Your task to perform on an android device: Open calendar and show me the fourth week of next month Image 0: 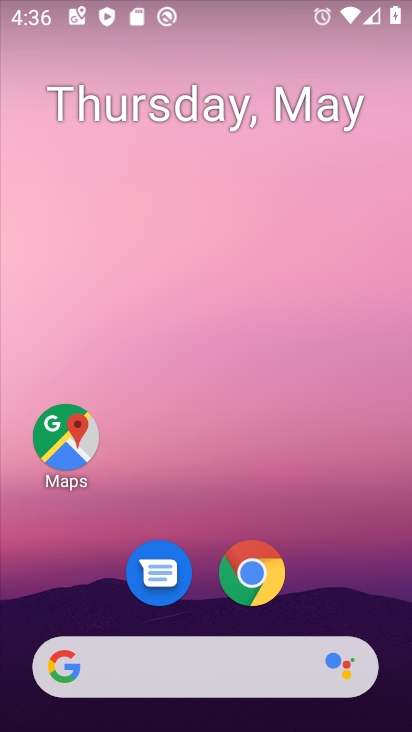
Step 0: drag from (282, 520) to (334, 74)
Your task to perform on an android device: Open calendar and show me the fourth week of next month Image 1: 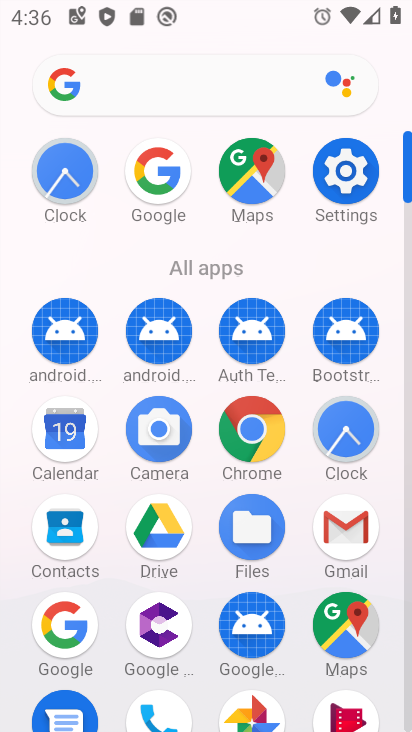
Step 1: click (75, 454)
Your task to perform on an android device: Open calendar and show me the fourth week of next month Image 2: 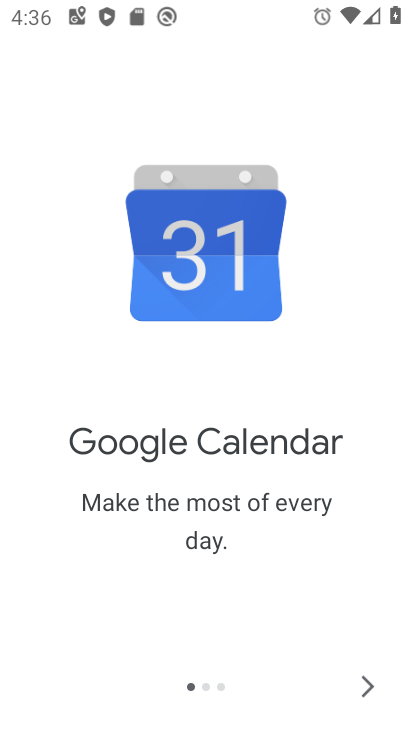
Step 2: click (368, 687)
Your task to perform on an android device: Open calendar and show me the fourth week of next month Image 3: 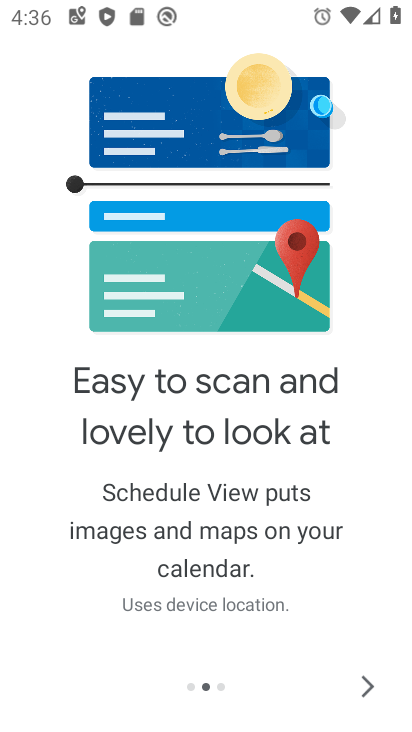
Step 3: click (368, 687)
Your task to perform on an android device: Open calendar and show me the fourth week of next month Image 4: 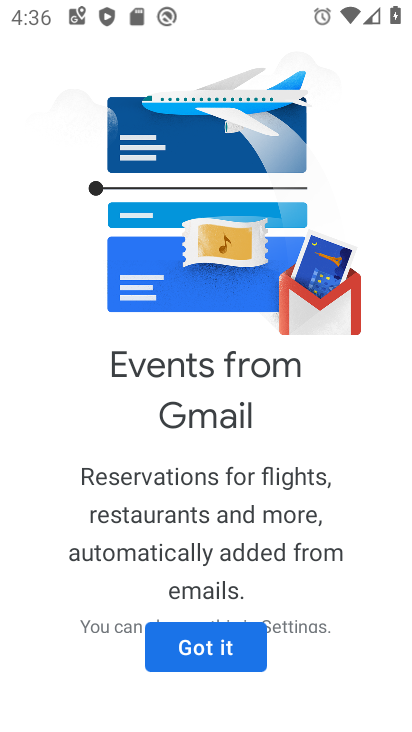
Step 4: click (368, 687)
Your task to perform on an android device: Open calendar and show me the fourth week of next month Image 5: 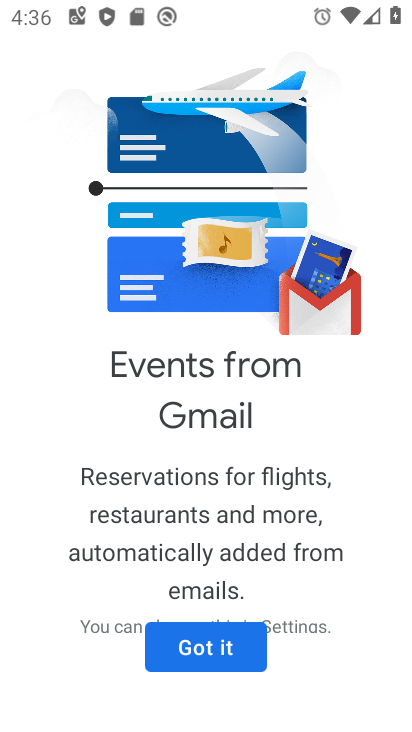
Step 5: click (192, 663)
Your task to perform on an android device: Open calendar and show me the fourth week of next month Image 6: 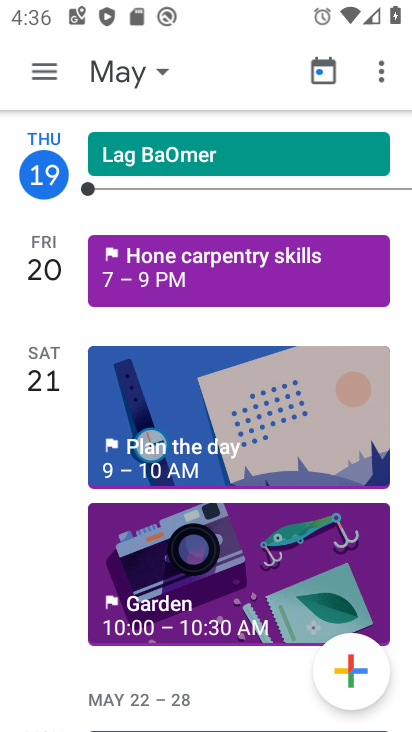
Step 6: click (111, 66)
Your task to perform on an android device: Open calendar and show me the fourth week of next month Image 7: 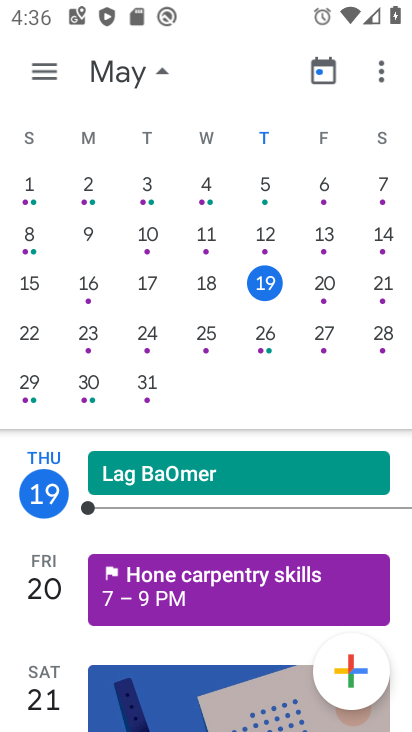
Step 7: drag from (333, 277) to (18, 262)
Your task to perform on an android device: Open calendar and show me the fourth week of next month Image 8: 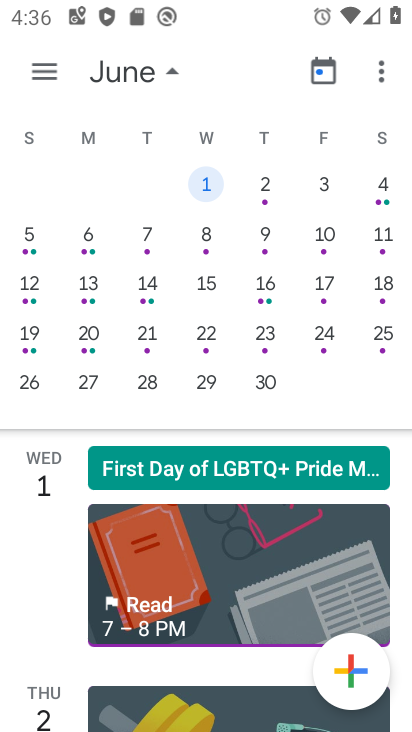
Step 8: click (28, 341)
Your task to perform on an android device: Open calendar and show me the fourth week of next month Image 9: 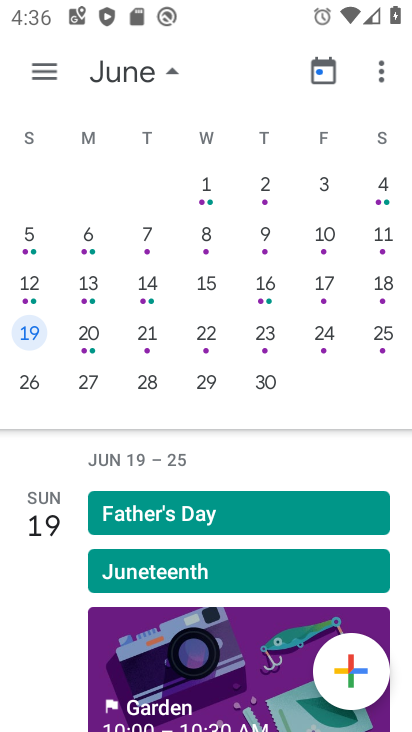
Step 9: click (28, 341)
Your task to perform on an android device: Open calendar and show me the fourth week of next month Image 10: 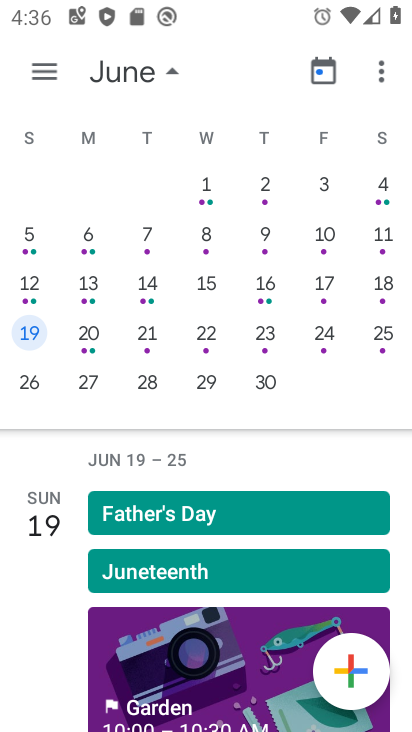
Step 10: drag from (219, 442) to (235, 79)
Your task to perform on an android device: Open calendar and show me the fourth week of next month Image 11: 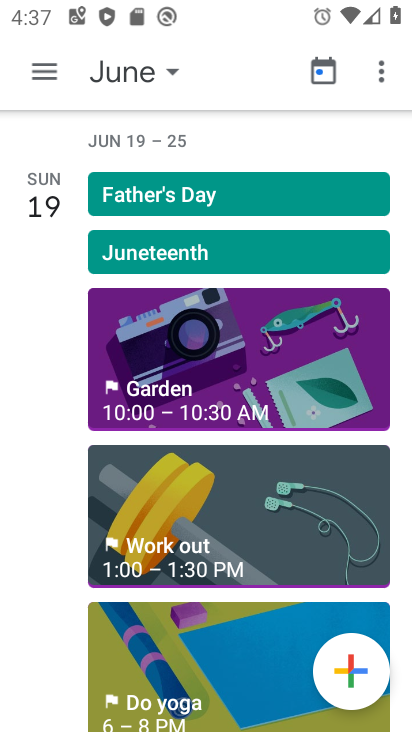
Step 11: click (57, 80)
Your task to perform on an android device: Open calendar and show me the fourth week of next month Image 12: 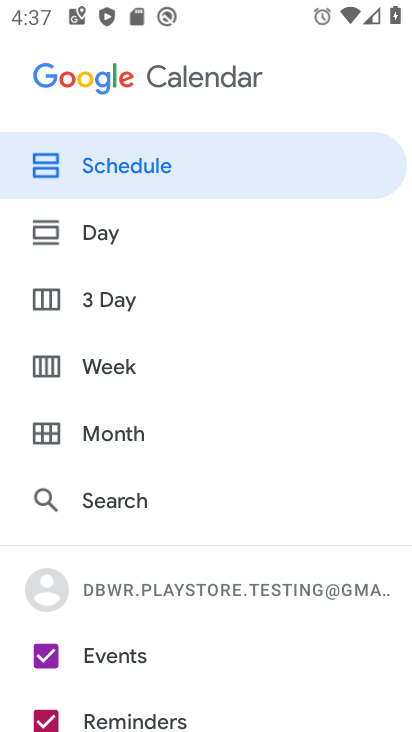
Step 12: click (84, 374)
Your task to perform on an android device: Open calendar and show me the fourth week of next month Image 13: 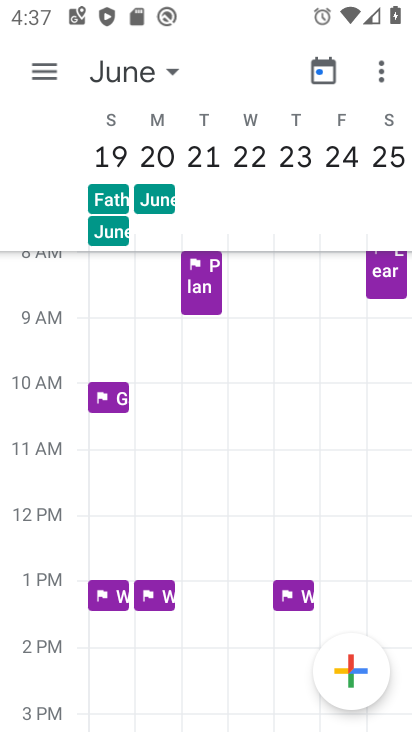
Step 13: task complete